Your task to perform on an android device: Do I have any events this weekend? Image 0: 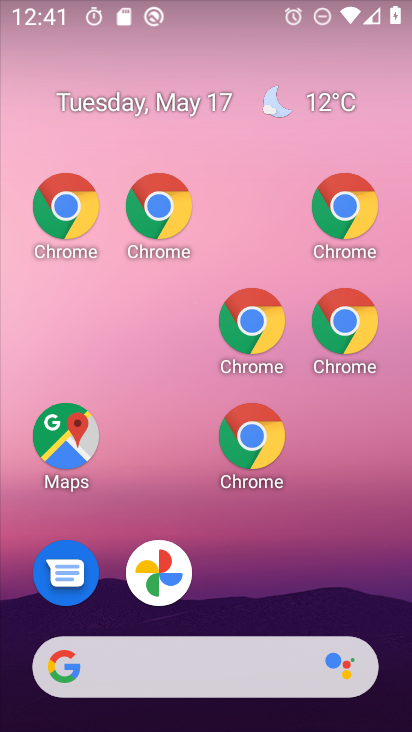
Step 0: drag from (311, 635) to (291, 195)
Your task to perform on an android device: Do I have any events this weekend? Image 1: 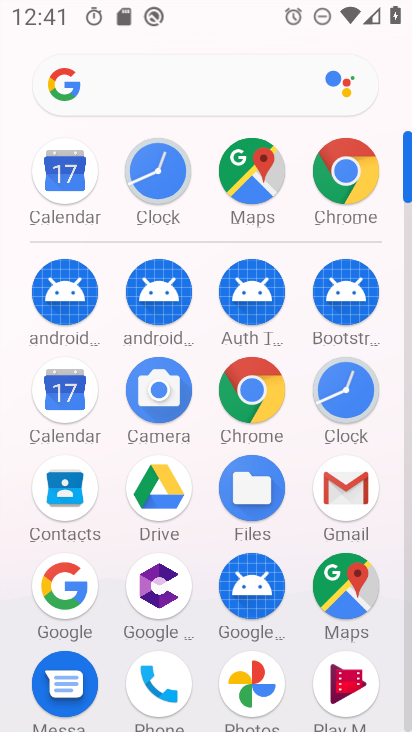
Step 1: click (57, 378)
Your task to perform on an android device: Do I have any events this weekend? Image 2: 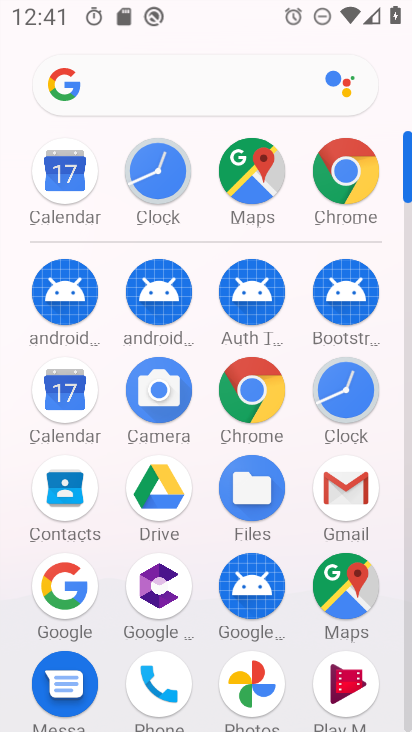
Step 2: click (59, 379)
Your task to perform on an android device: Do I have any events this weekend? Image 3: 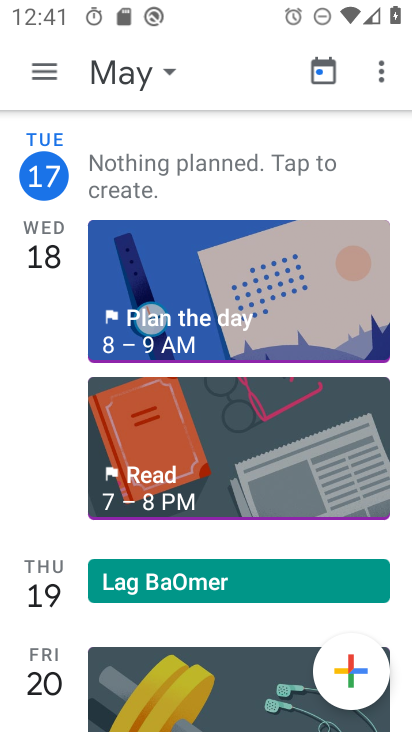
Step 3: drag from (128, 620) to (146, 241)
Your task to perform on an android device: Do I have any events this weekend? Image 4: 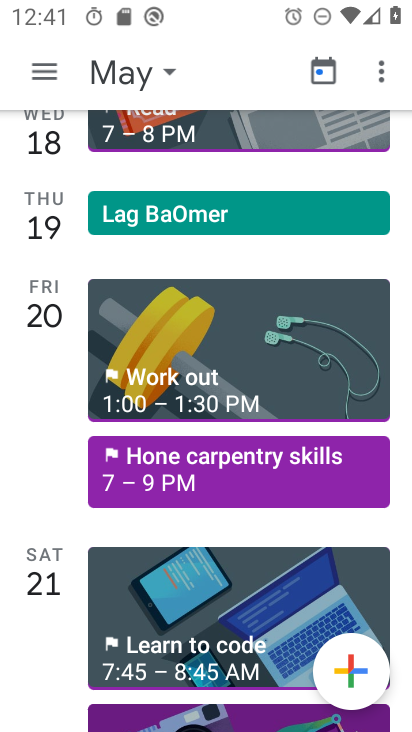
Step 4: drag from (220, 500) to (278, 201)
Your task to perform on an android device: Do I have any events this weekend? Image 5: 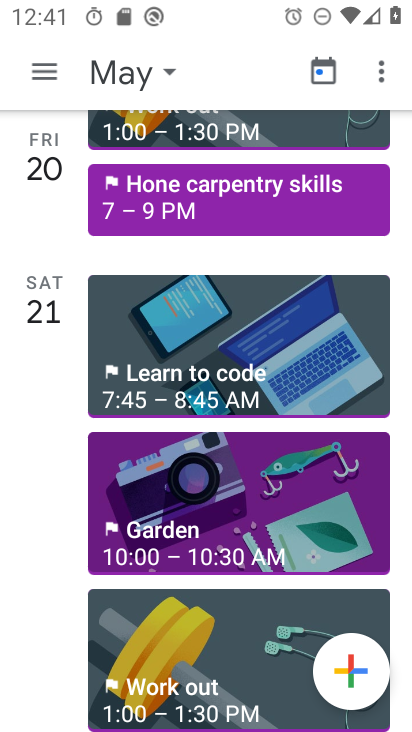
Step 5: click (183, 351)
Your task to perform on an android device: Do I have any events this weekend? Image 6: 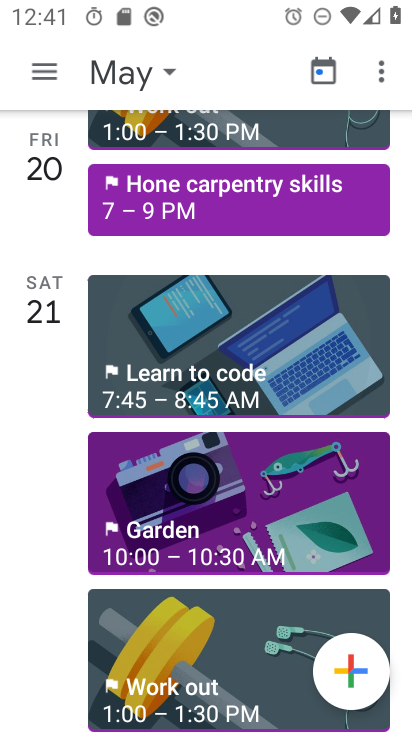
Step 6: click (183, 351)
Your task to perform on an android device: Do I have any events this weekend? Image 7: 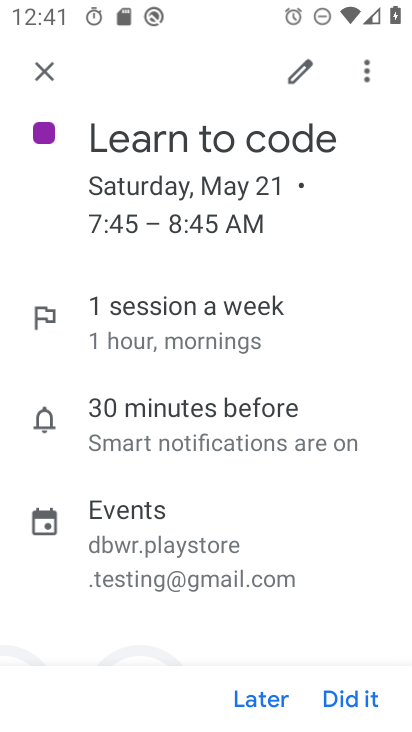
Step 7: task complete